Your task to perform on an android device: Go to internet settings Image 0: 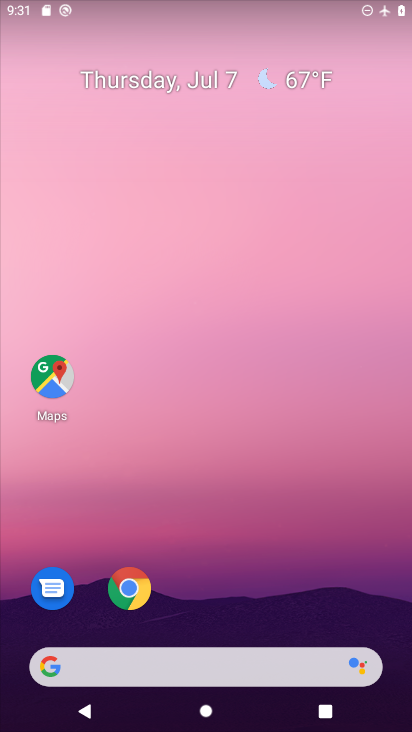
Step 0: drag from (248, 612) to (203, 32)
Your task to perform on an android device: Go to internet settings Image 1: 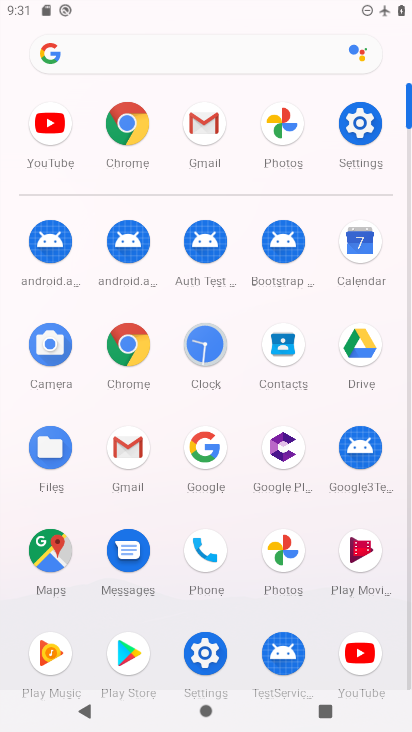
Step 1: click (358, 126)
Your task to perform on an android device: Go to internet settings Image 2: 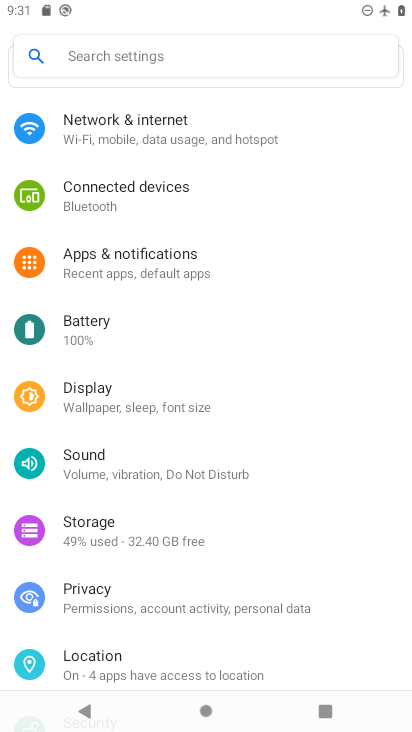
Step 2: click (209, 140)
Your task to perform on an android device: Go to internet settings Image 3: 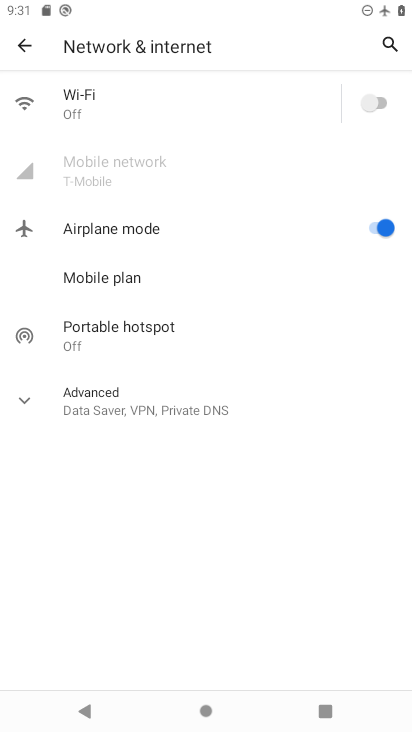
Step 3: task complete